Your task to perform on an android device: Open Yahoo.com Image 0: 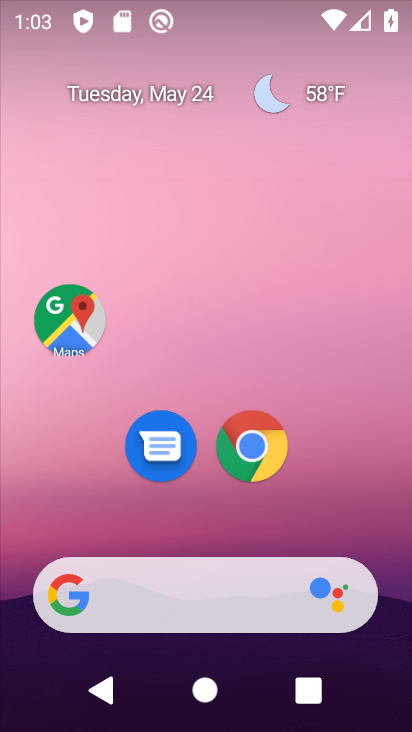
Step 0: drag from (220, 529) to (225, 155)
Your task to perform on an android device: Open Yahoo.com Image 1: 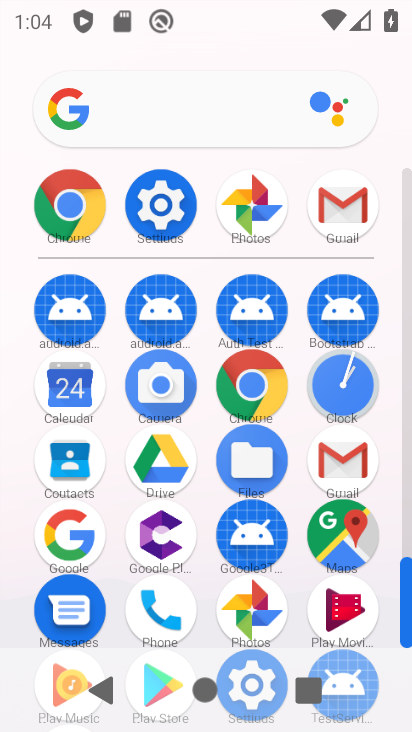
Step 1: click (78, 229)
Your task to perform on an android device: Open Yahoo.com Image 2: 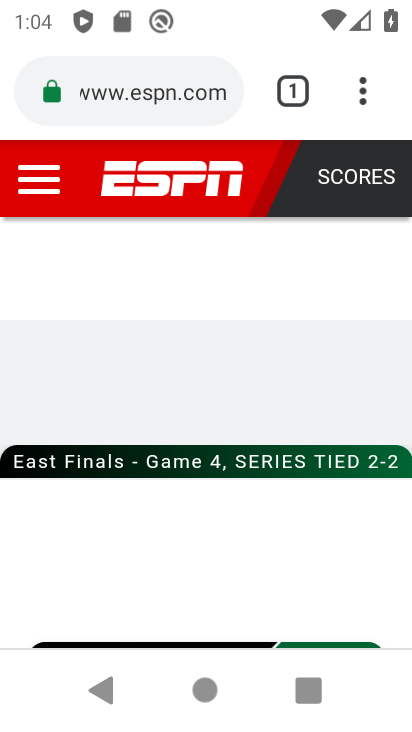
Step 2: click (181, 105)
Your task to perform on an android device: Open Yahoo.com Image 3: 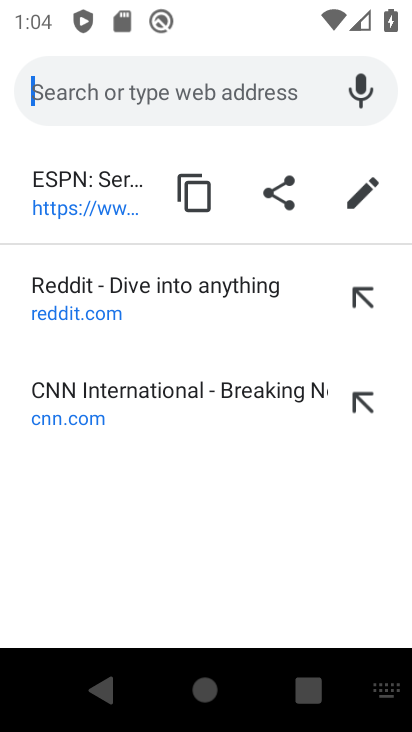
Step 3: type "yahoo"
Your task to perform on an android device: Open Yahoo.com Image 4: 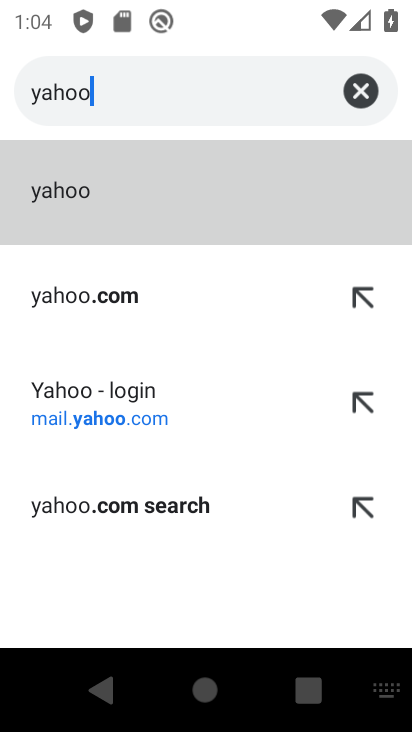
Step 4: click (212, 418)
Your task to perform on an android device: Open Yahoo.com Image 5: 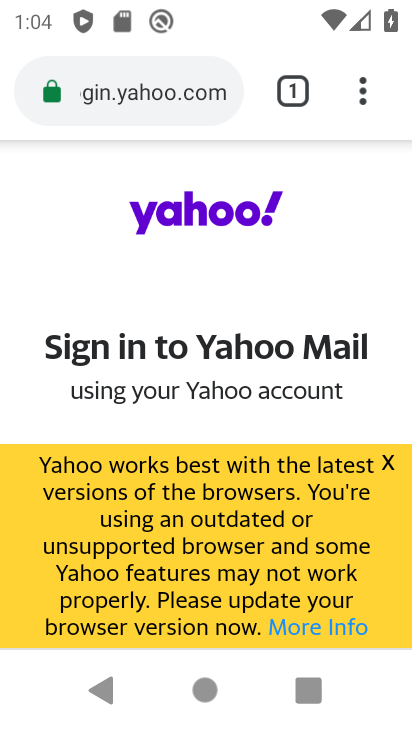
Step 5: task complete